Your task to perform on an android device: Go to Reddit.com Image 0: 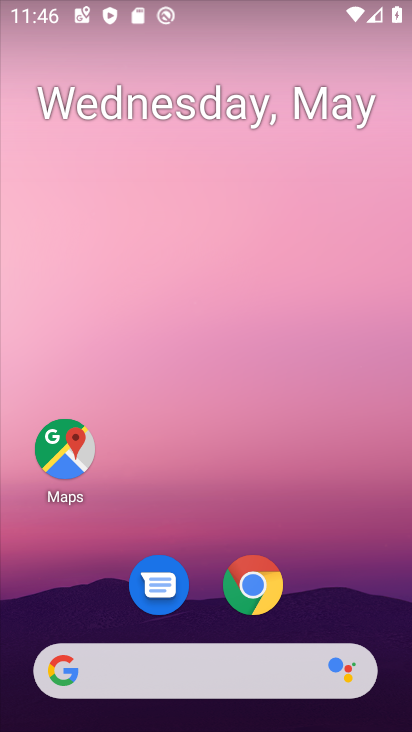
Step 0: click (201, 676)
Your task to perform on an android device: Go to Reddit.com Image 1: 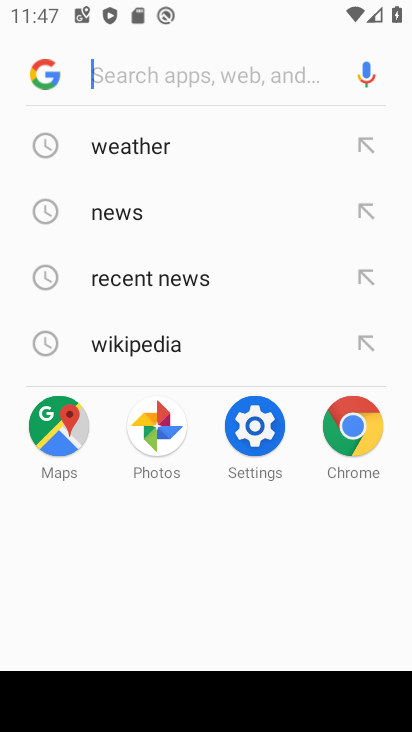
Step 1: type "reddit.com"
Your task to perform on an android device: Go to Reddit.com Image 2: 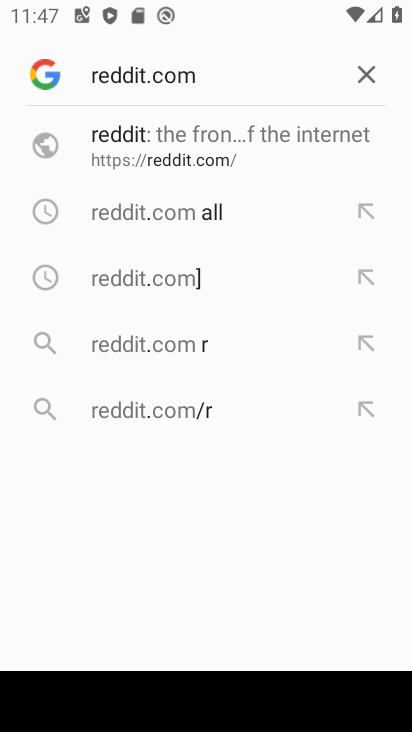
Step 2: click (119, 151)
Your task to perform on an android device: Go to Reddit.com Image 3: 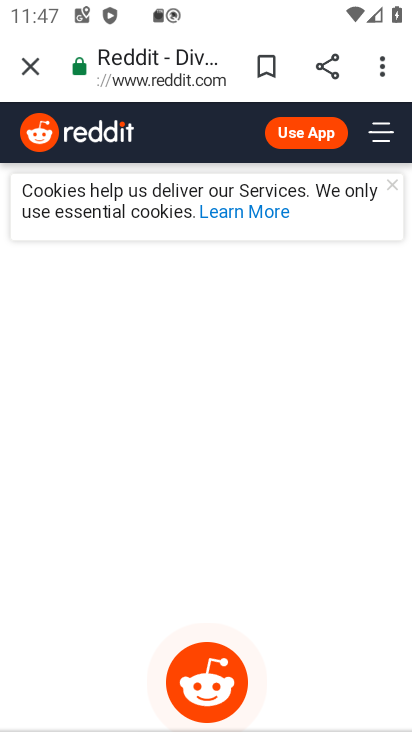
Step 3: task complete